Your task to perform on an android device: show emergency info Image 0: 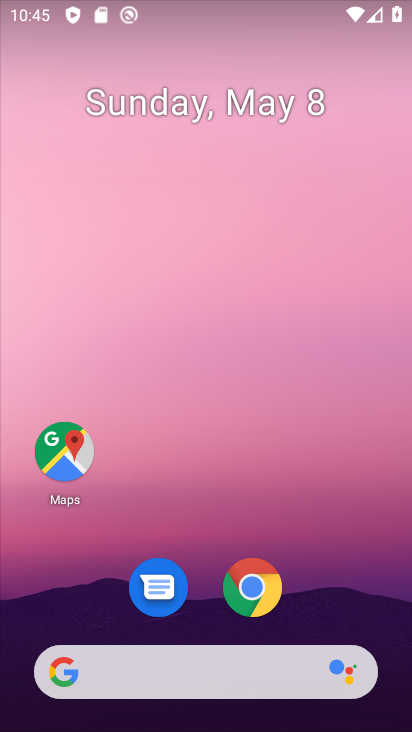
Step 0: drag from (353, 592) to (189, 70)
Your task to perform on an android device: show emergency info Image 1: 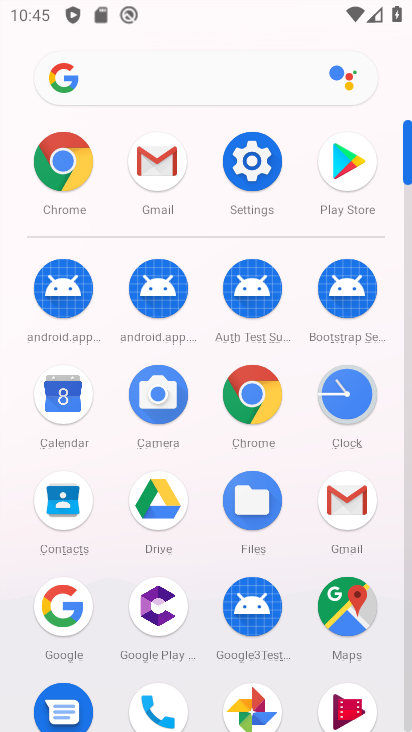
Step 1: click (250, 161)
Your task to perform on an android device: show emergency info Image 2: 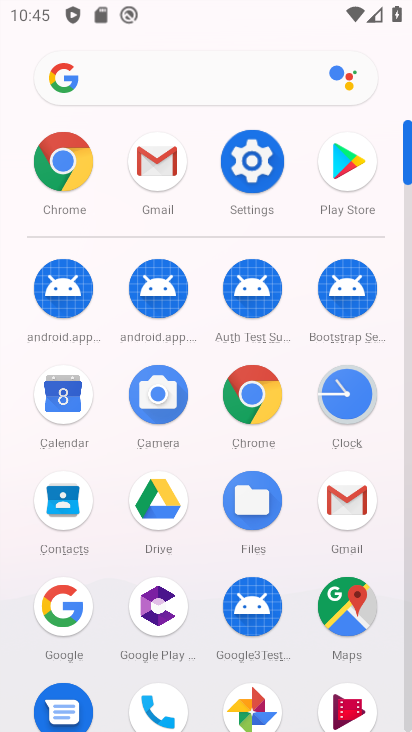
Step 2: click (251, 162)
Your task to perform on an android device: show emergency info Image 3: 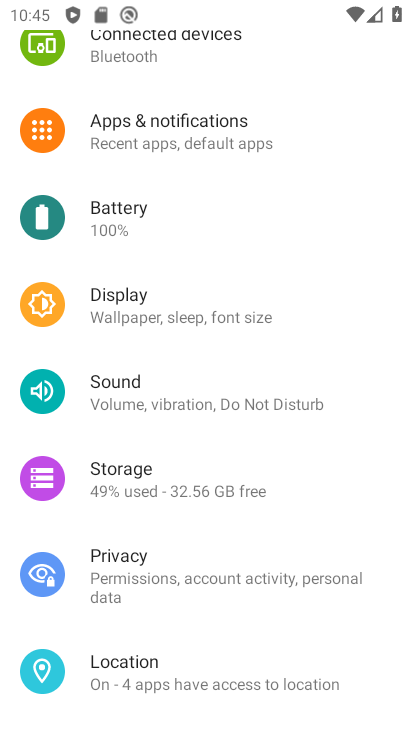
Step 3: drag from (230, 534) to (167, 15)
Your task to perform on an android device: show emergency info Image 4: 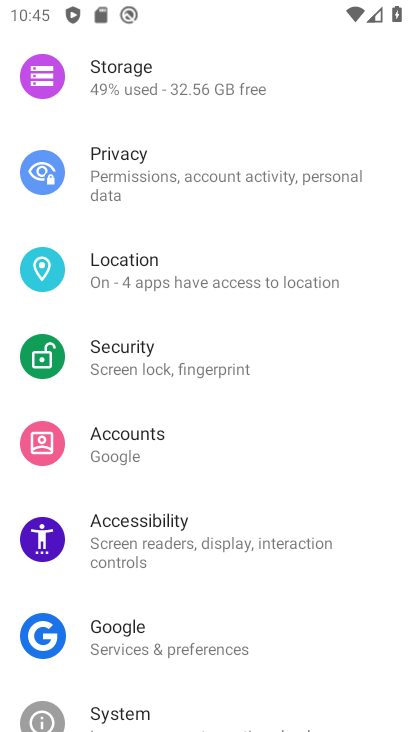
Step 4: drag from (183, 561) to (119, 42)
Your task to perform on an android device: show emergency info Image 5: 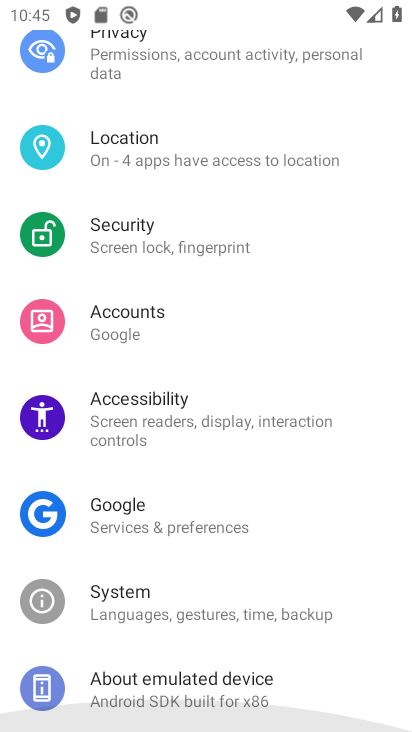
Step 5: drag from (265, 511) to (231, 27)
Your task to perform on an android device: show emergency info Image 6: 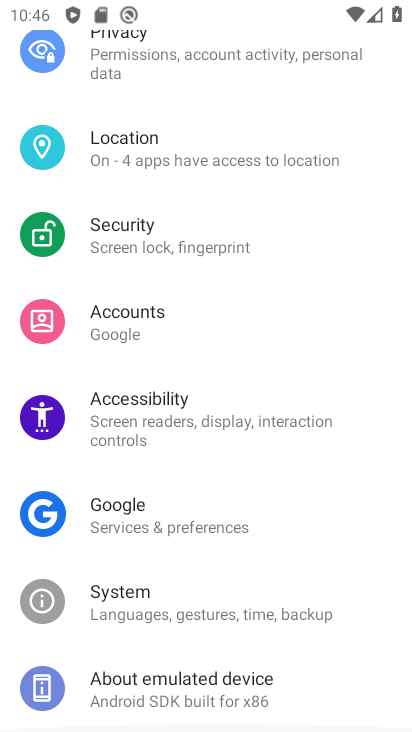
Step 6: drag from (211, 460) to (186, 29)
Your task to perform on an android device: show emergency info Image 7: 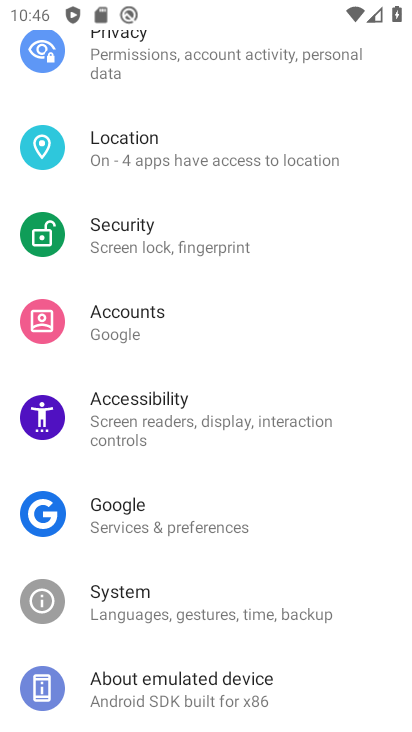
Step 7: click (186, 693)
Your task to perform on an android device: show emergency info Image 8: 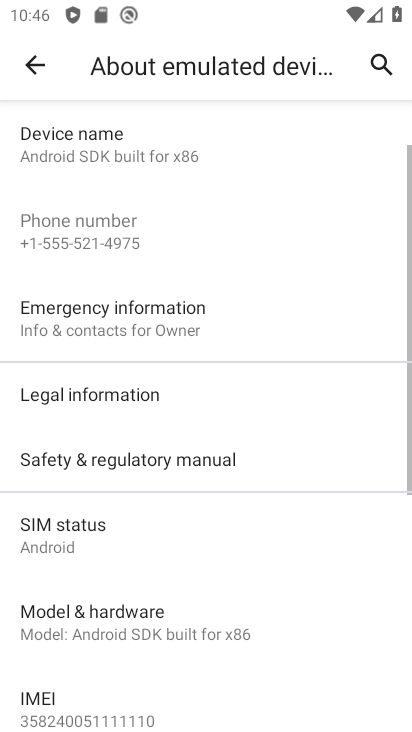
Step 8: click (74, 323)
Your task to perform on an android device: show emergency info Image 9: 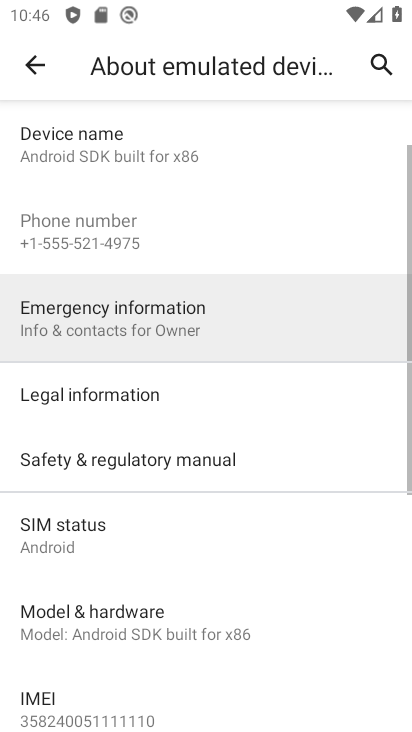
Step 9: click (79, 323)
Your task to perform on an android device: show emergency info Image 10: 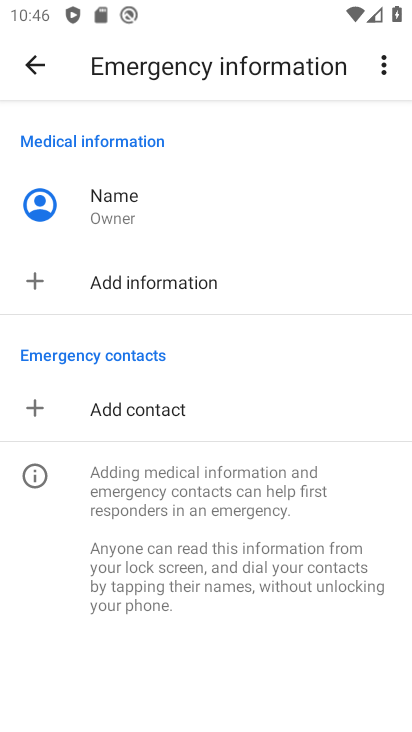
Step 10: task complete